Your task to perform on an android device: Is it going to rain tomorrow? Image 0: 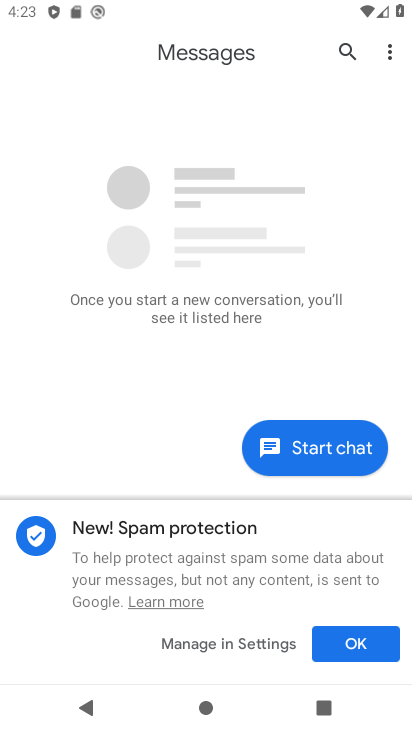
Step 0: drag from (218, 465) to (285, 108)
Your task to perform on an android device: Is it going to rain tomorrow? Image 1: 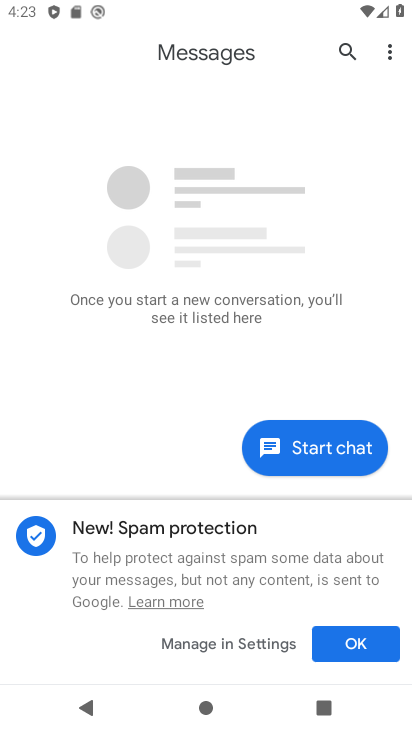
Step 1: press home button
Your task to perform on an android device: Is it going to rain tomorrow? Image 2: 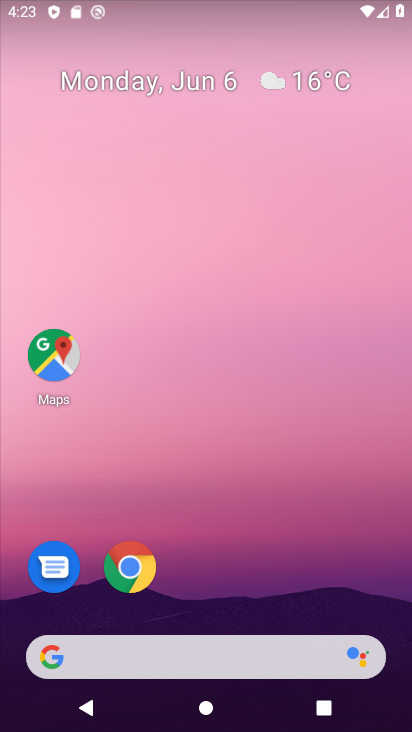
Step 2: click (320, 90)
Your task to perform on an android device: Is it going to rain tomorrow? Image 3: 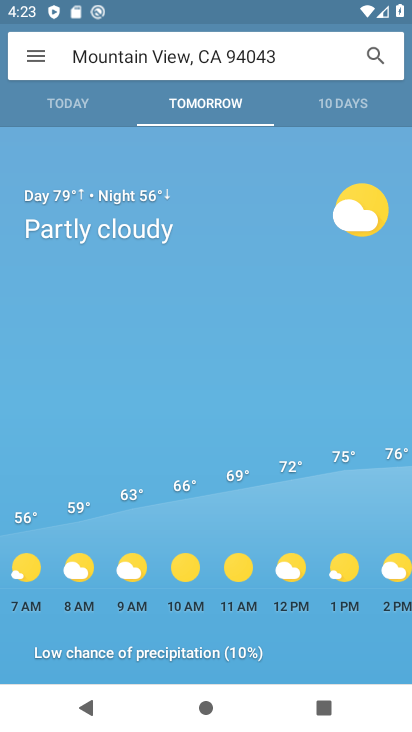
Step 3: task complete